Your task to perform on an android device: Open the phone app and click the voicemail tab. Image 0: 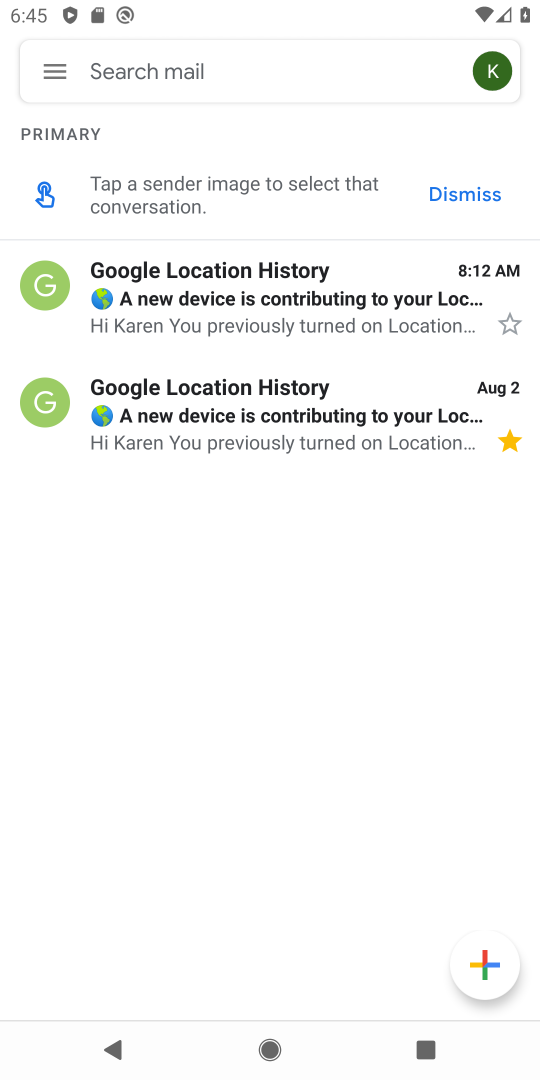
Step 0: press home button
Your task to perform on an android device: Open the phone app and click the voicemail tab. Image 1: 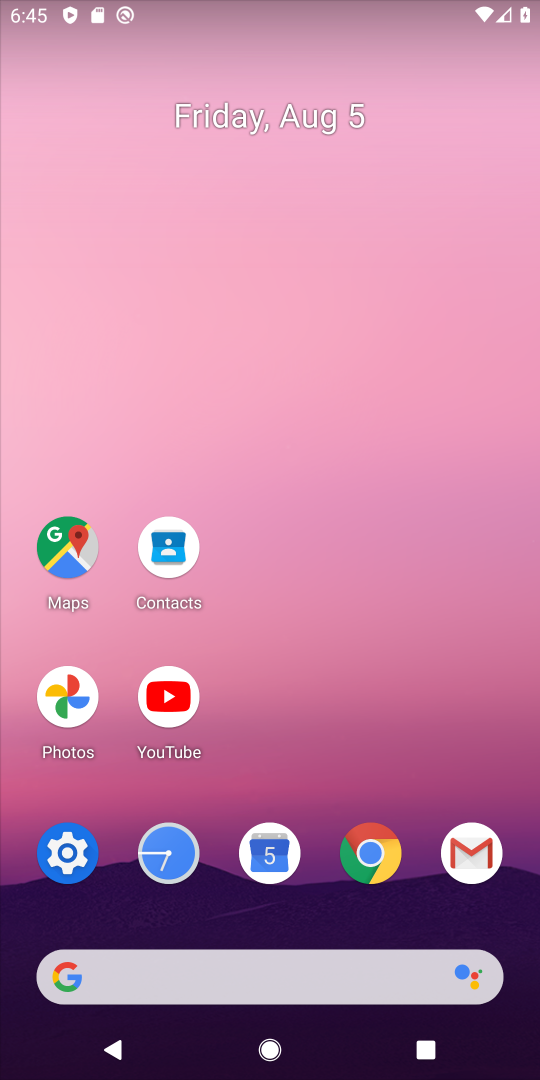
Step 1: drag from (300, 738) to (252, 63)
Your task to perform on an android device: Open the phone app and click the voicemail tab. Image 2: 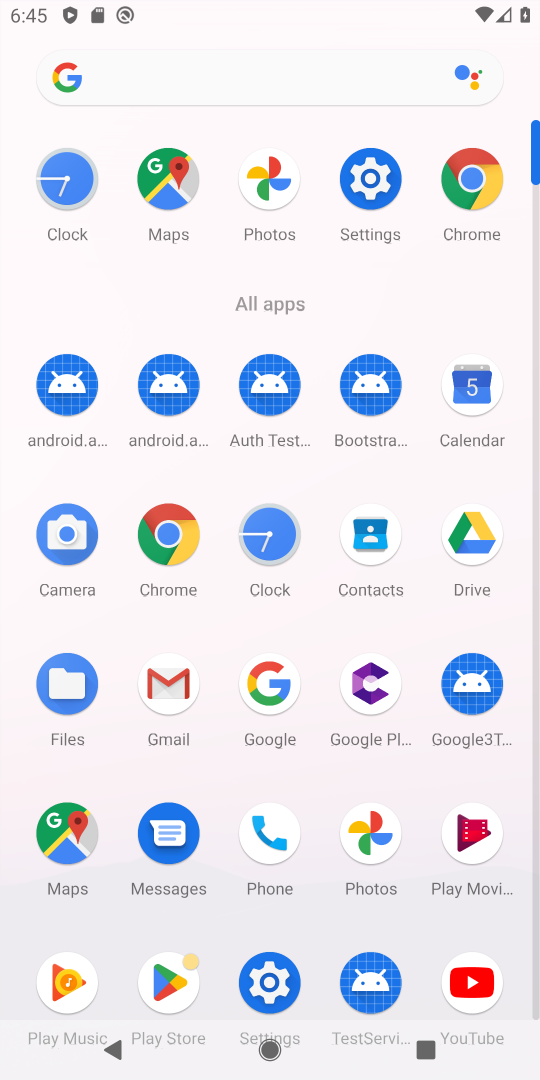
Step 2: click (267, 830)
Your task to perform on an android device: Open the phone app and click the voicemail tab. Image 3: 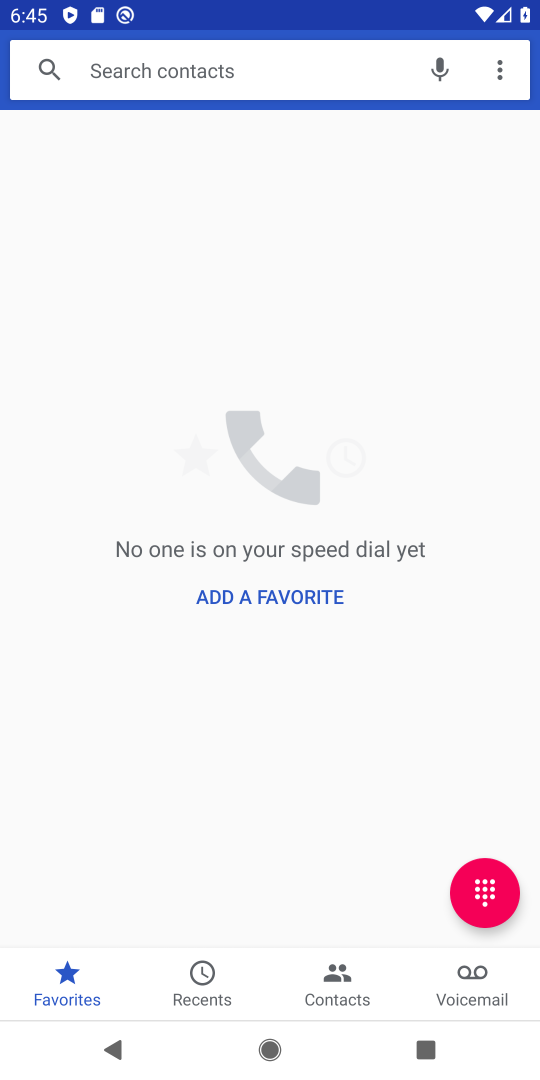
Step 3: click (475, 979)
Your task to perform on an android device: Open the phone app and click the voicemail tab. Image 4: 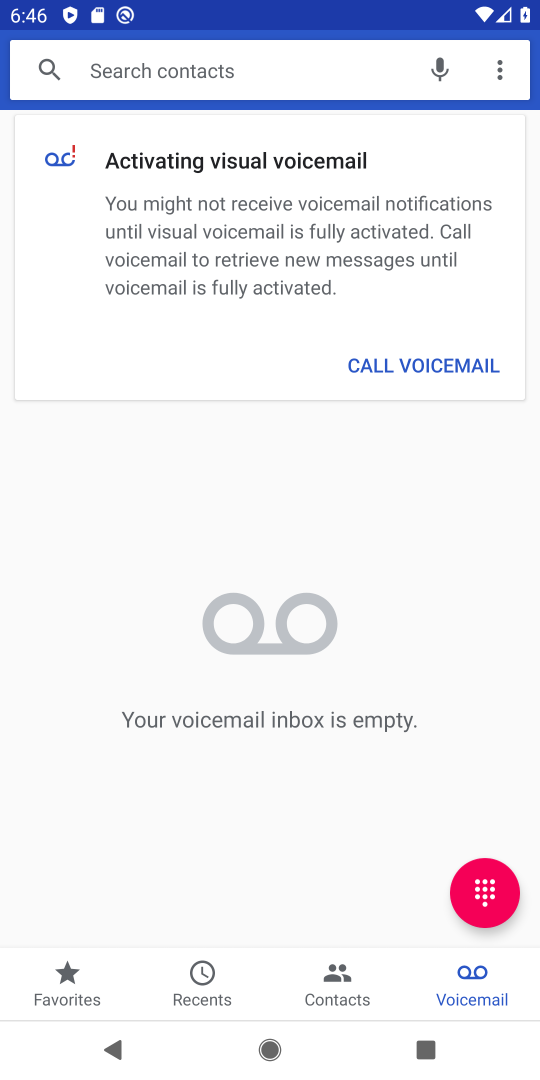
Step 4: task complete